Your task to perform on an android device: allow notifications from all sites in the chrome app Image 0: 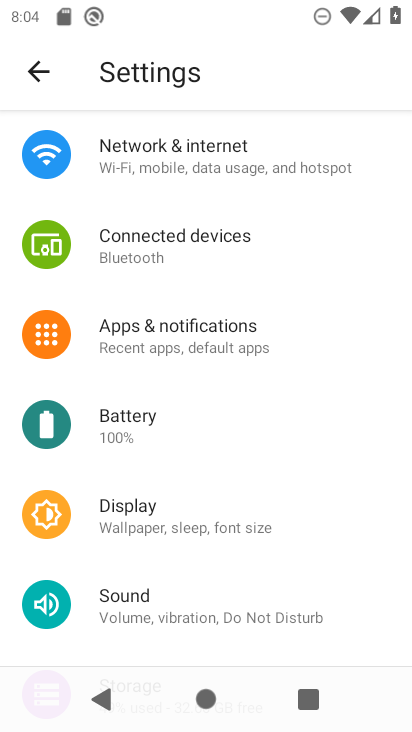
Step 0: press home button
Your task to perform on an android device: allow notifications from all sites in the chrome app Image 1: 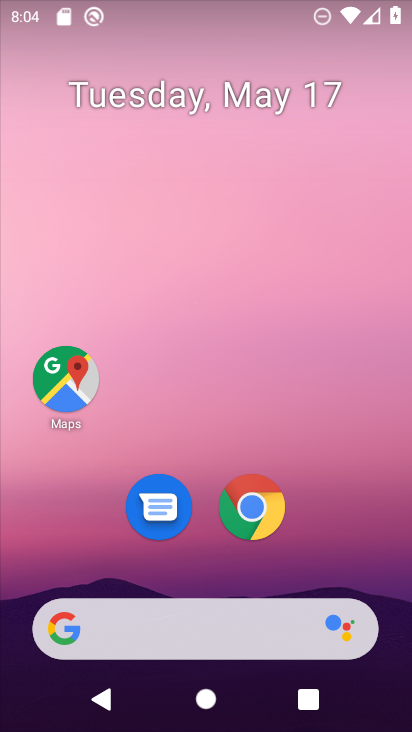
Step 1: click (255, 512)
Your task to perform on an android device: allow notifications from all sites in the chrome app Image 2: 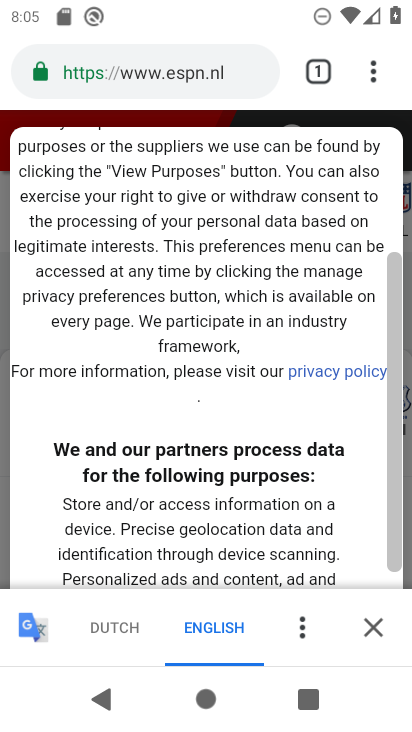
Step 2: click (371, 74)
Your task to perform on an android device: allow notifications from all sites in the chrome app Image 3: 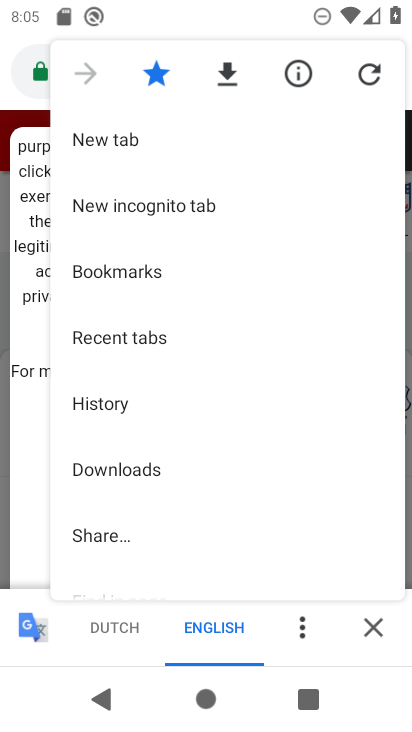
Step 3: drag from (242, 427) to (235, 26)
Your task to perform on an android device: allow notifications from all sites in the chrome app Image 4: 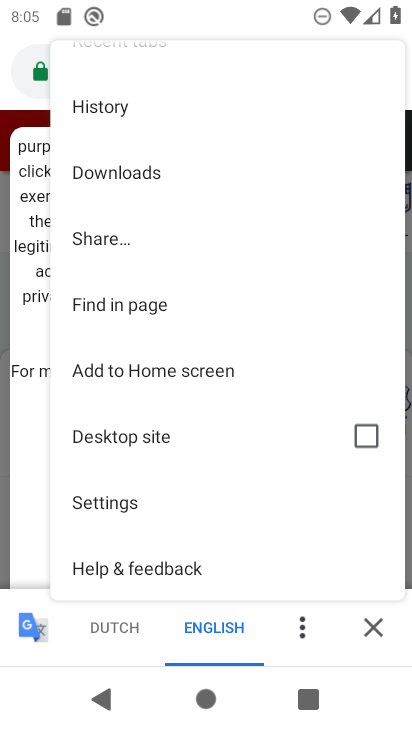
Step 4: click (87, 502)
Your task to perform on an android device: allow notifications from all sites in the chrome app Image 5: 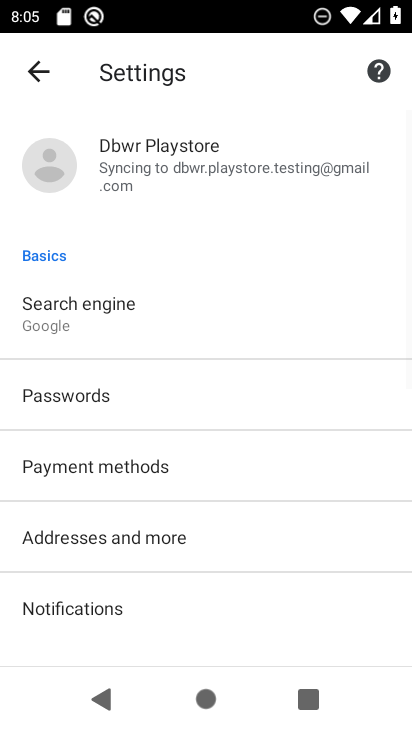
Step 5: drag from (183, 533) to (209, 53)
Your task to perform on an android device: allow notifications from all sites in the chrome app Image 6: 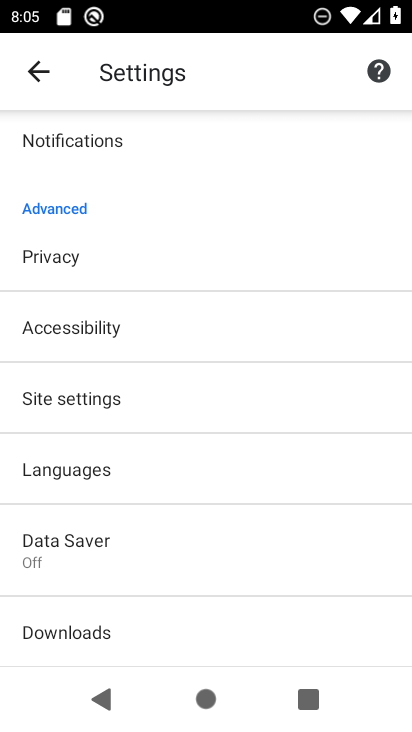
Step 6: click (42, 397)
Your task to perform on an android device: allow notifications from all sites in the chrome app Image 7: 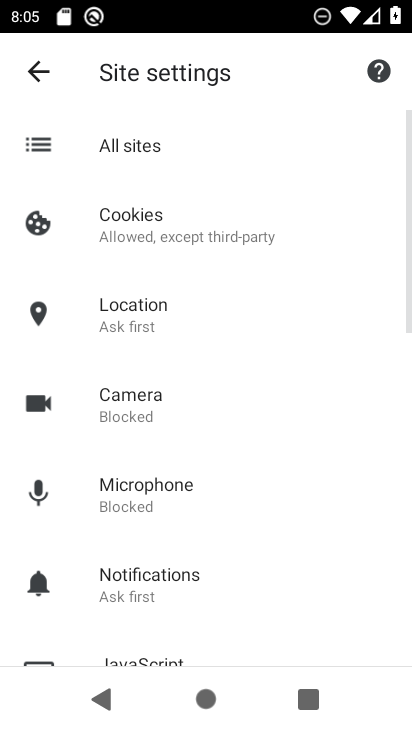
Step 7: drag from (255, 561) to (246, 204)
Your task to perform on an android device: allow notifications from all sites in the chrome app Image 8: 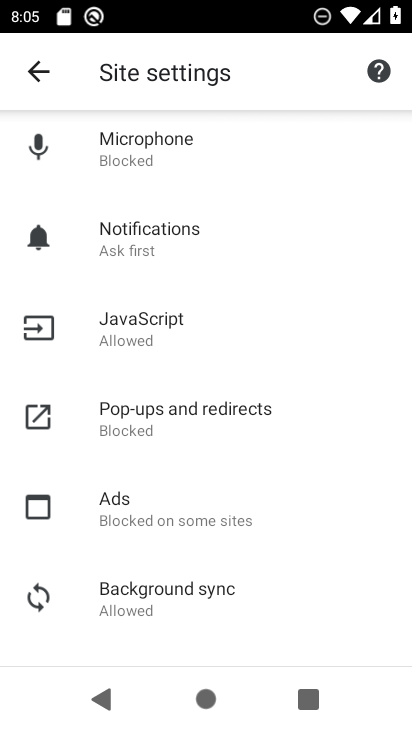
Step 8: click (124, 252)
Your task to perform on an android device: allow notifications from all sites in the chrome app Image 9: 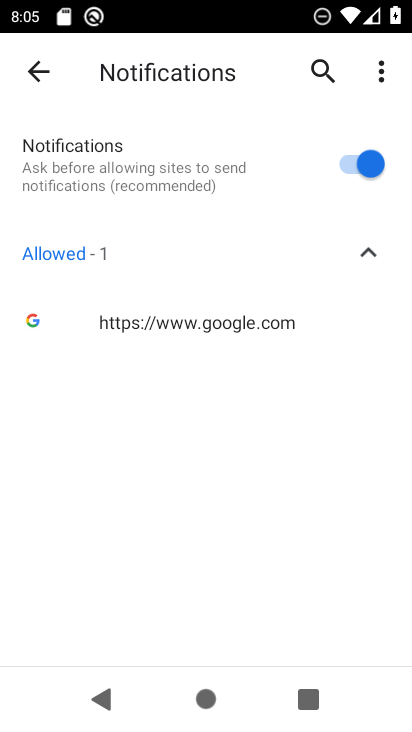
Step 9: task complete